Your task to perform on an android device: Clear the shopping cart on walmart.com. Add macbook pro to the cart on walmart.com Image 0: 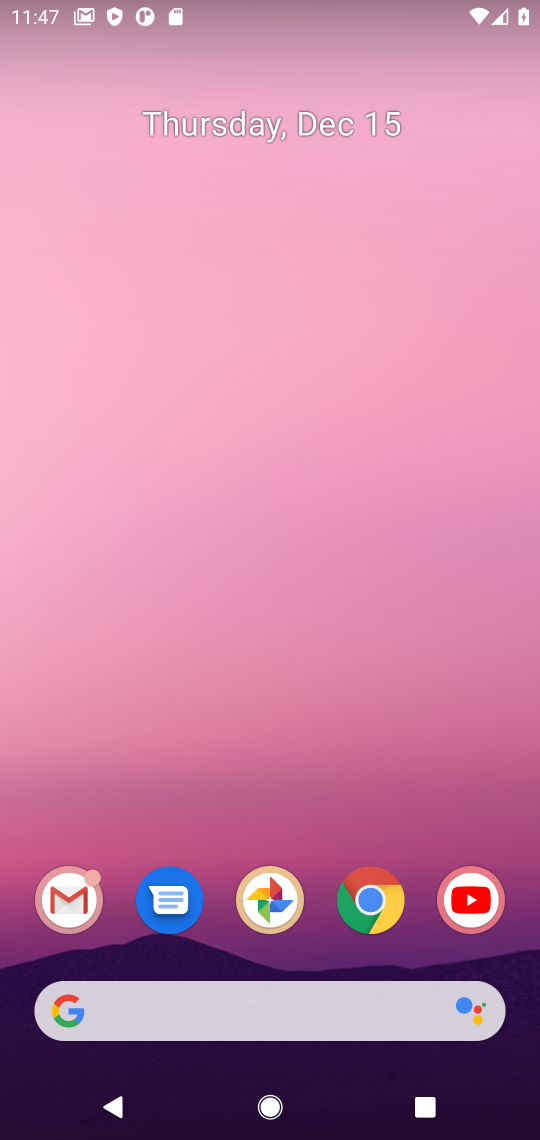
Step 0: click (353, 897)
Your task to perform on an android device: Clear the shopping cart on walmart.com. Add macbook pro to the cart on walmart.com Image 1: 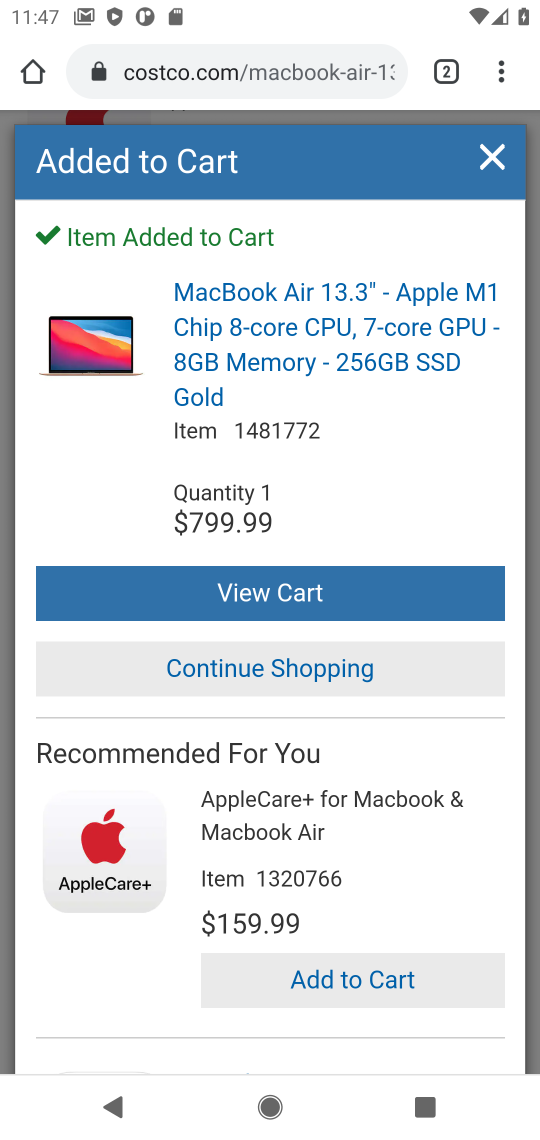
Step 1: click (345, 68)
Your task to perform on an android device: Clear the shopping cart on walmart.com. Add macbook pro to the cart on walmart.com Image 2: 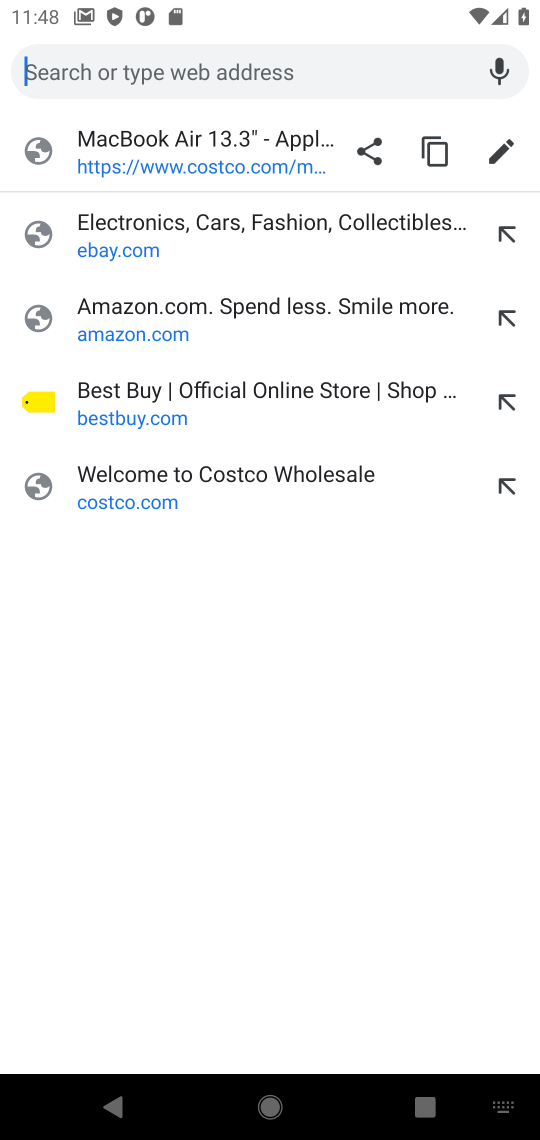
Step 2: press enter
Your task to perform on an android device: Clear the shopping cart on walmart.com. Add macbook pro to the cart on walmart.com Image 3: 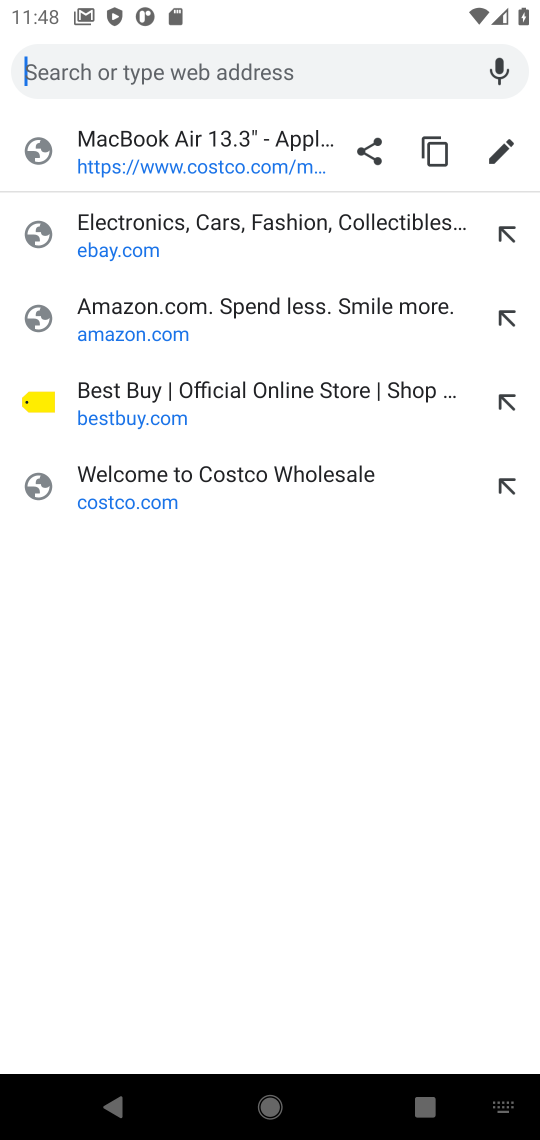
Step 3: type "walmart.com"
Your task to perform on an android device: Clear the shopping cart on walmart.com. Add macbook pro to the cart on walmart.com Image 4: 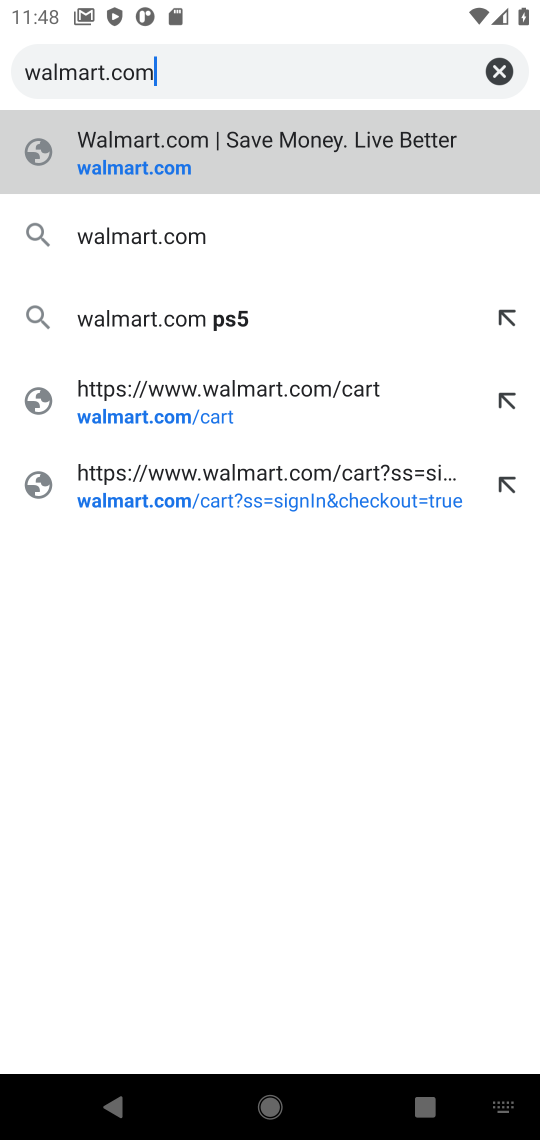
Step 4: click (167, 236)
Your task to perform on an android device: Clear the shopping cart on walmart.com. Add macbook pro to the cart on walmart.com Image 5: 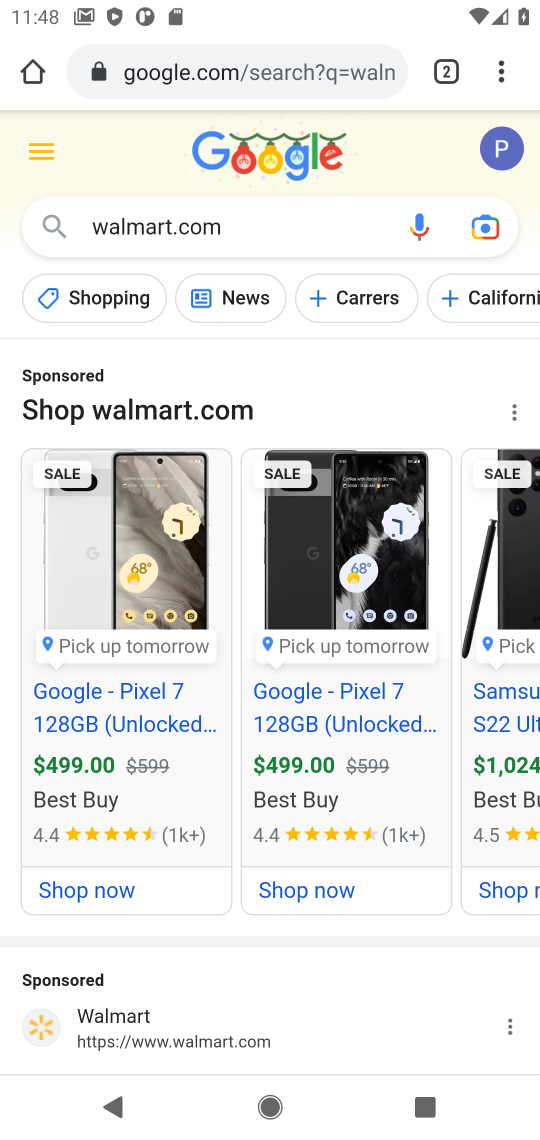
Step 5: click (194, 1038)
Your task to perform on an android device: Clear the shopping cart on walmart.com. Add macbook pro to the cart on walmart.com Image 6: 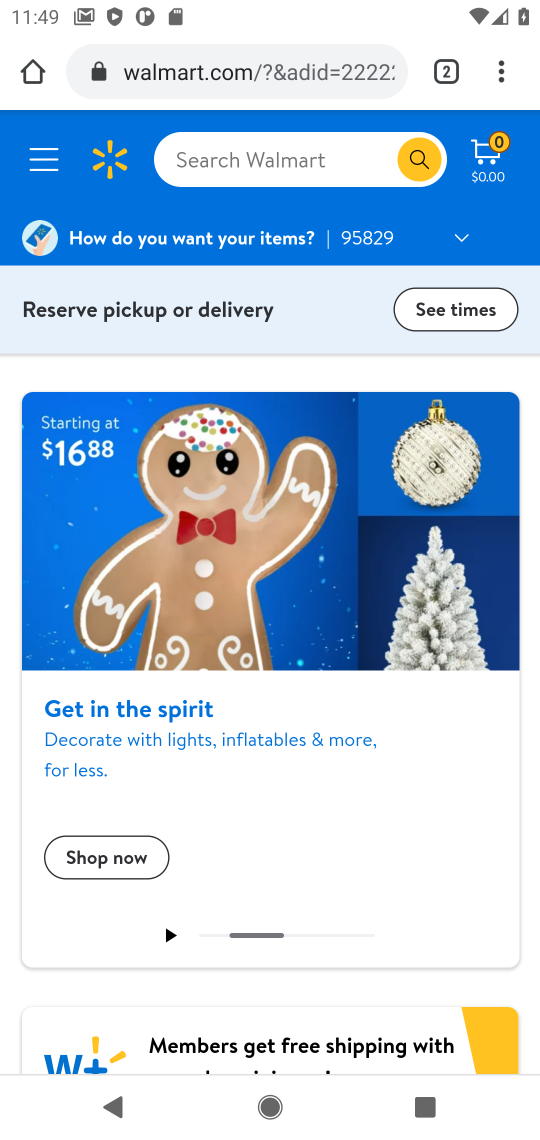
Step 6: click (337, 165)
Your task to perform on an android device: Clear the shopping cart on walmart.com. Add macbook pro to the cart on walmart.com Image 7: 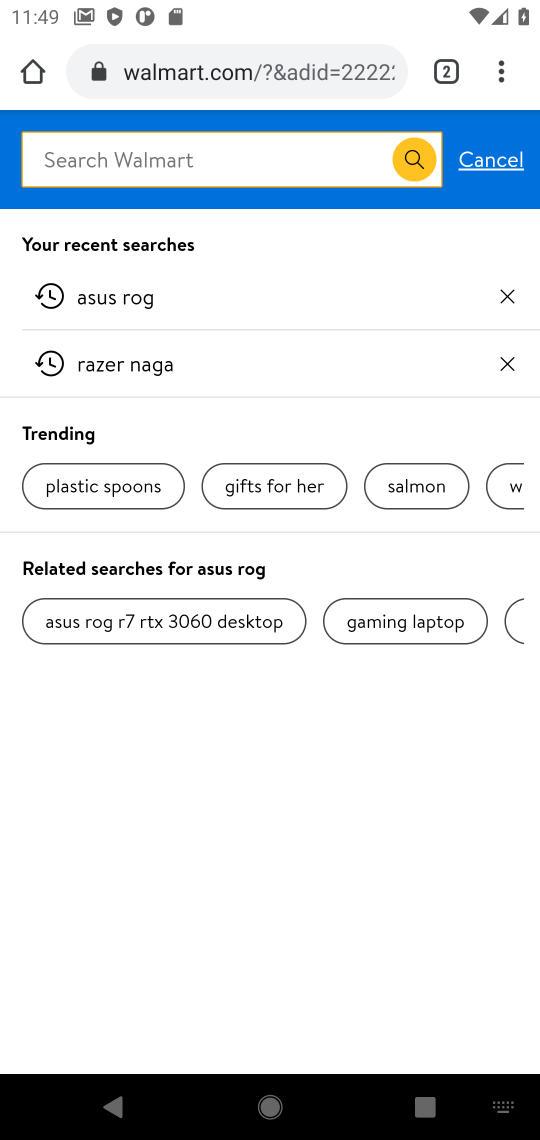
Step 7: press enter
Your task to perform on an android device: Clear the shopping cart on walmart.com. Add macbook pro to the cart on walmart.com Image 8: 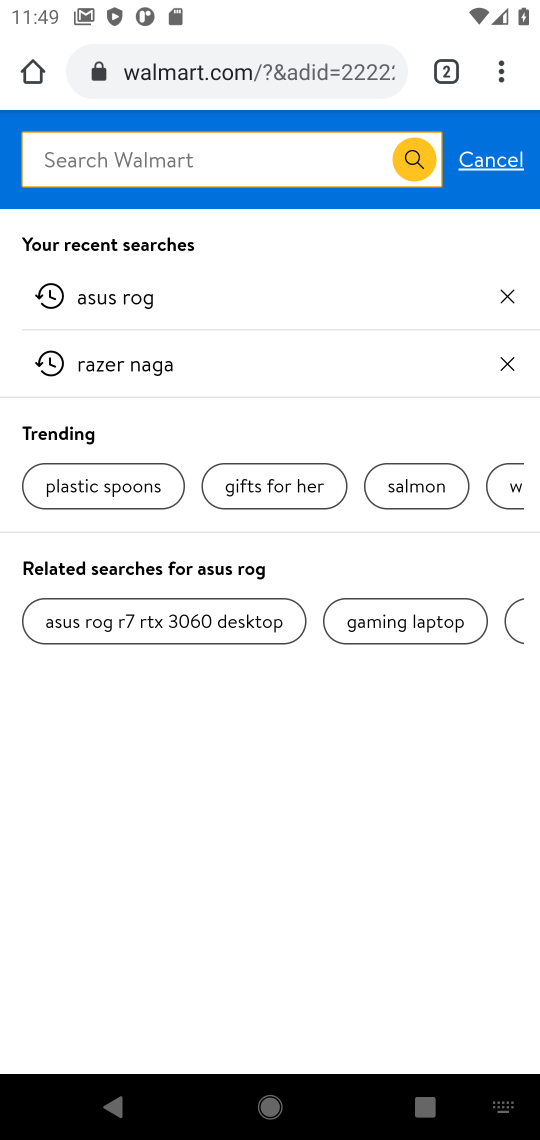
Step 8: type "macbook pro"
Your task to perform on an android device: Clear the shopping cart on walmart.com. Add macbook pro to the cart on walmart.com Image 9: 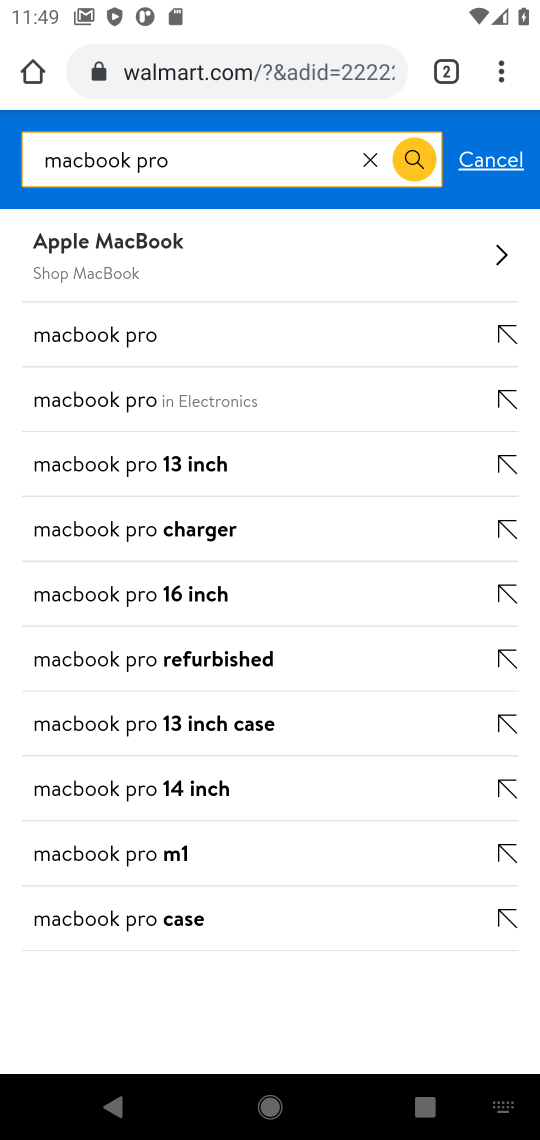
Step 9: click (139, 337)
Your task to perform on an android device: Clear the shopping cart on walmart.com. Add macbook pro to the cart on walmart.com Image 10: 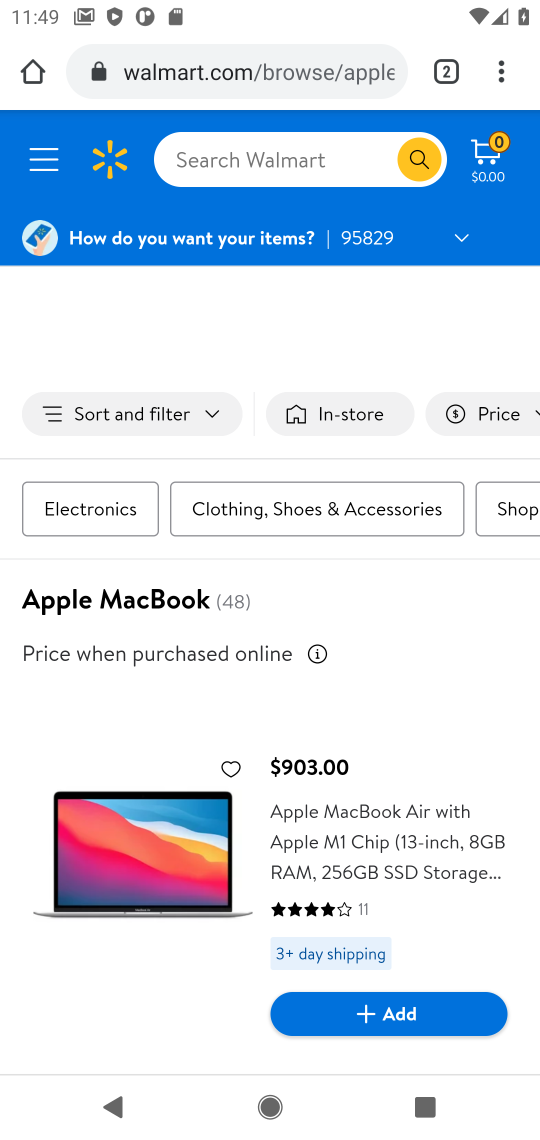
Step 10: drag from (377, 822) to (423, 357)
Your task to perform on an android device: Clear the shopping cart on walmart.com. Add macbook pro to the cart on walmart.com Image 11: 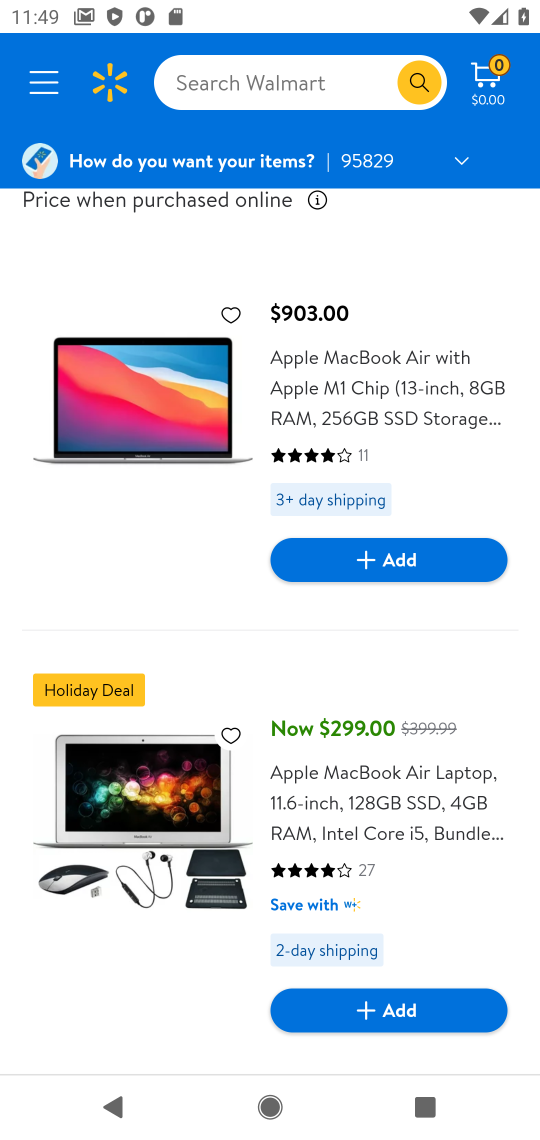
Step 11: drag from (424, 830) to (430, 472)
Your task to perform on an android device: Clear the shopping cart on walmart.com. Add macbook pro to the cart on walmart.com Image 12: 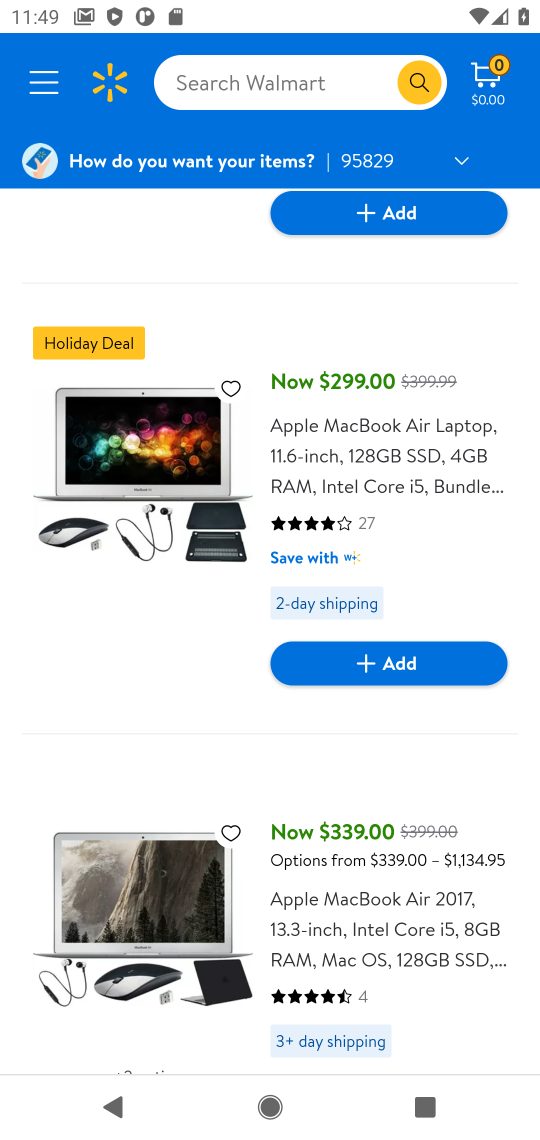
Step 12: drag from (413, 944) to (397, 318)
Your task to perform on an android device: Clear the shopping cart on walmart.com. Add macbook pro to the cart on walmart.com Image 13: 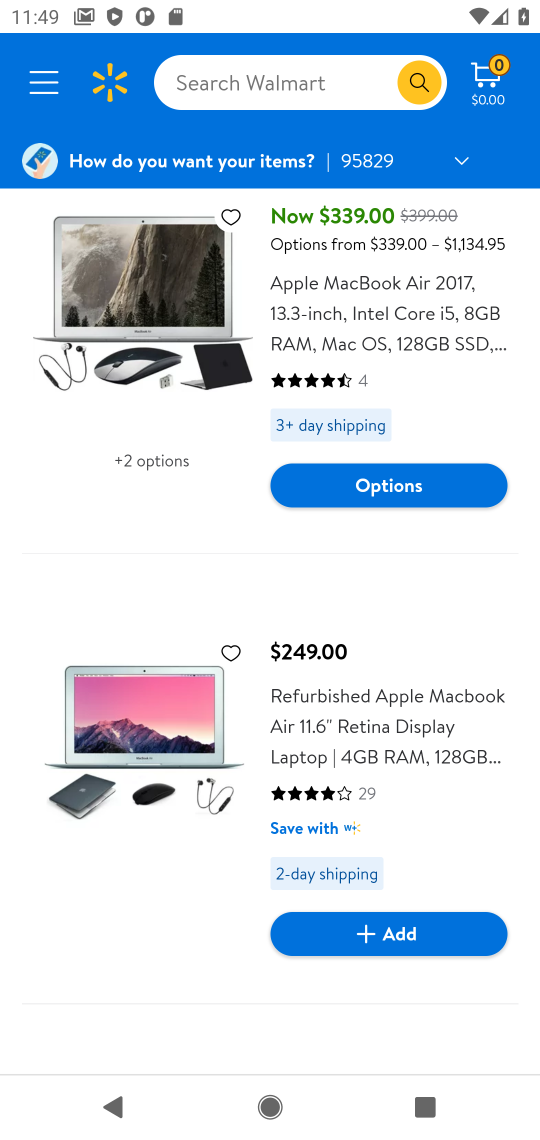
Step 13: drag from (420, 707) to (450, 255)
Your task to perform on an android device: Clear the shopping cart on walmart.com. Add macbook pro to the cart on walmart.com Image 14: 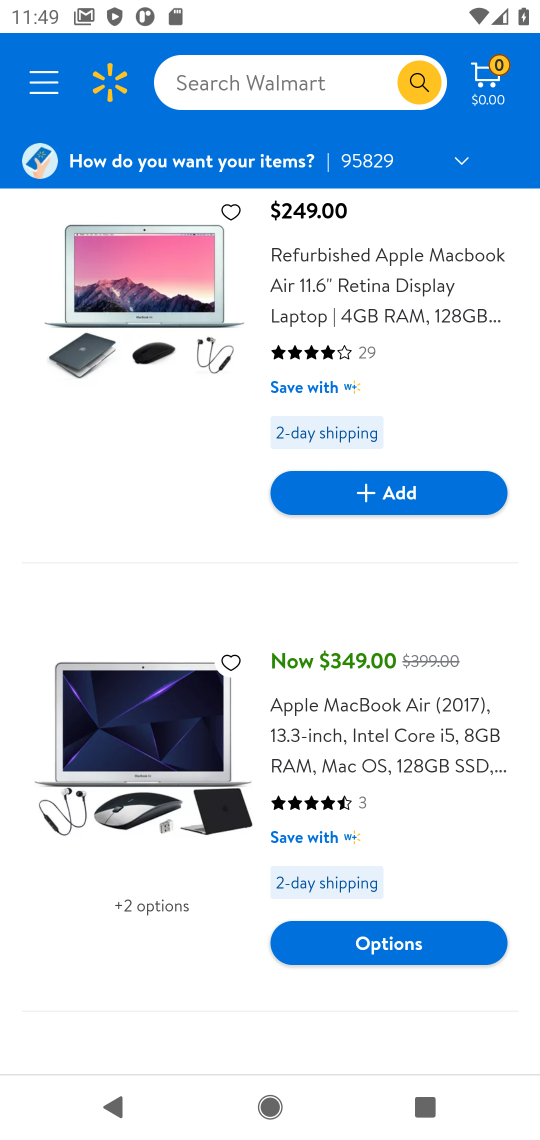
Step 14: drag from (440, 771) to (443, 281)
Your task to perform on an android device: Clear the shopping cart on walmart.com. Add macbook pro to the cart on walmart.com Image 15: 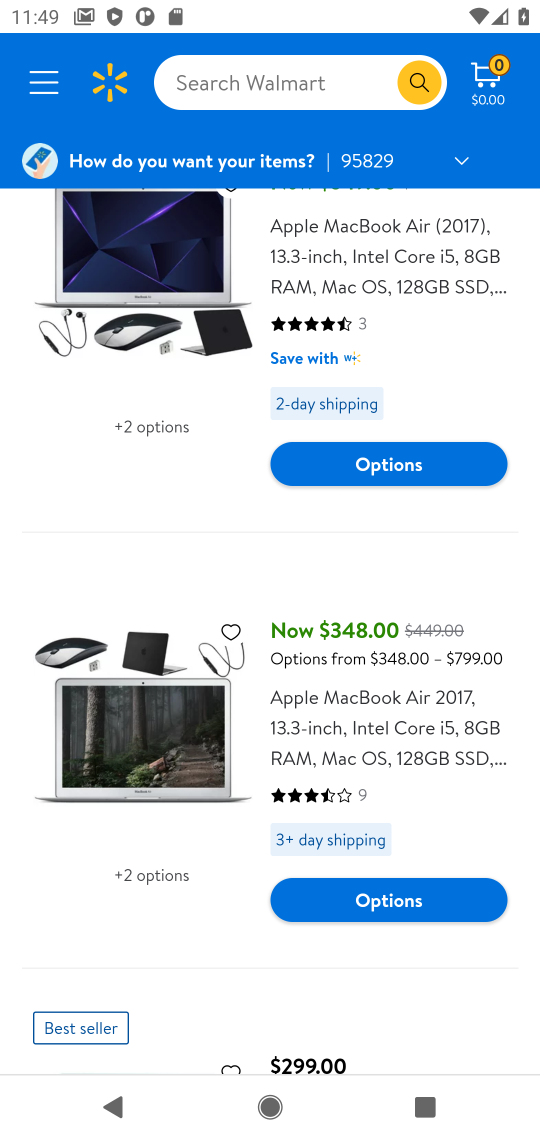
Step 15: drag from (406, 701) to (468, 297)
Your task to perform on an android device: Clear the shopping cart on walmart.com. Add macbook pro to the cart on walmart.com Image 16: 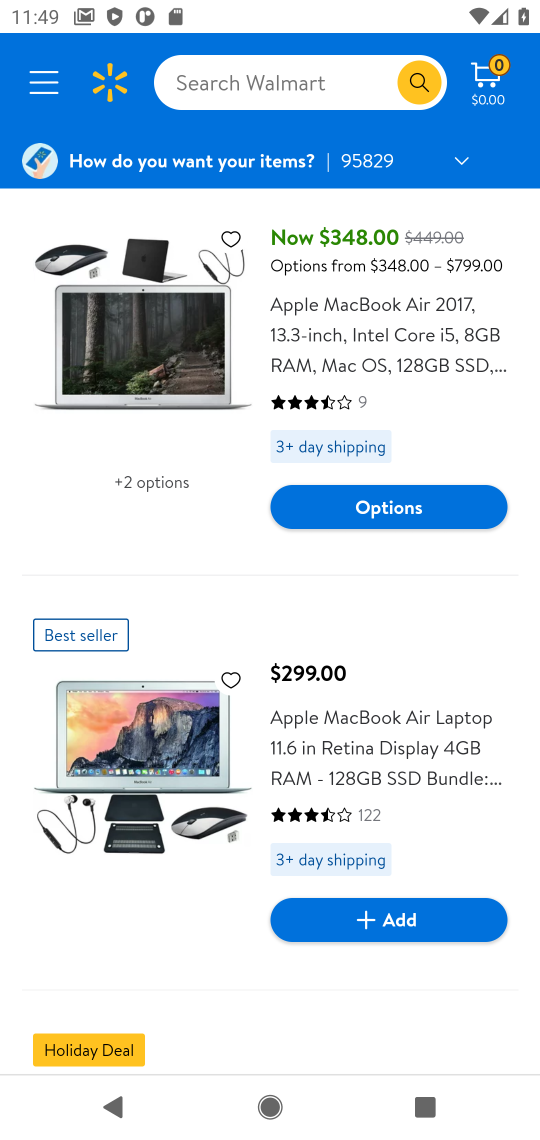
Step 16: drag from (407, 683) to (415, 207)
Your task to perform on an android device: Clear the shopping cart on walmart.com. Add macbook pro to the cart on walmart.com Image 17: 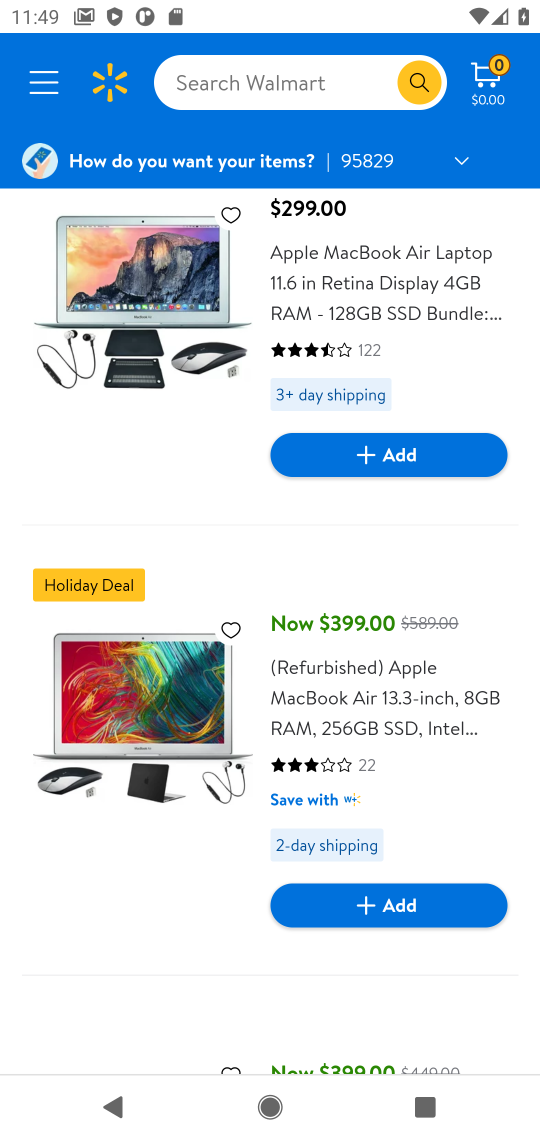
Step 17: drag from (387, 705) to (393, 395)
Your task to perform on an android device: Clear the shopping cart on walmart.com. Add macbook pro to the cart on walmart.com Image 18: 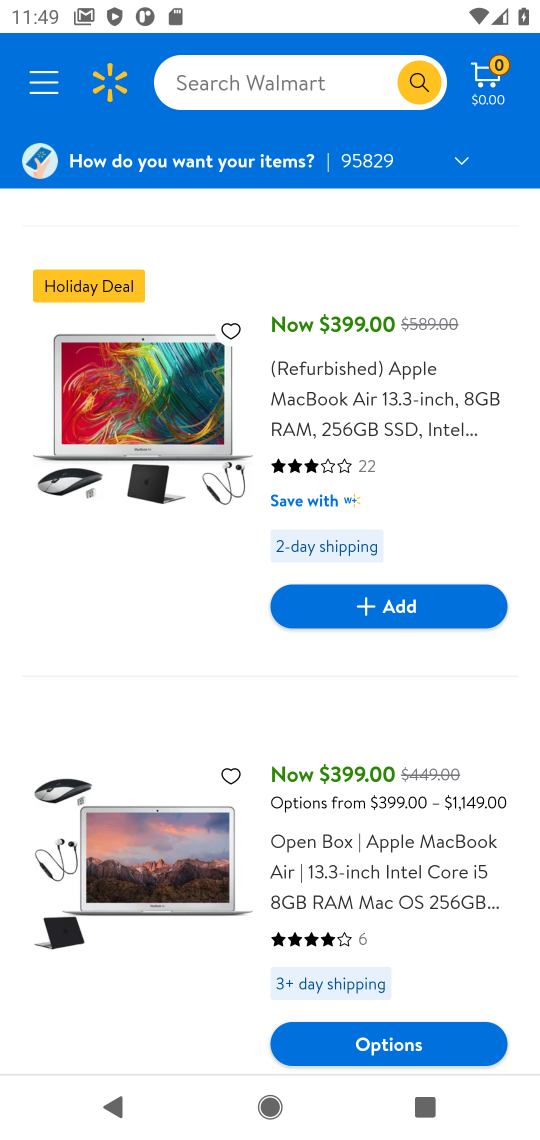
Step 18: drag from (374, 863) to (361, 325)
Your task to perform on an android device: Clear the shopping cart on walmart.com. Add macbook pro to the cart on walmart.com Image 19: 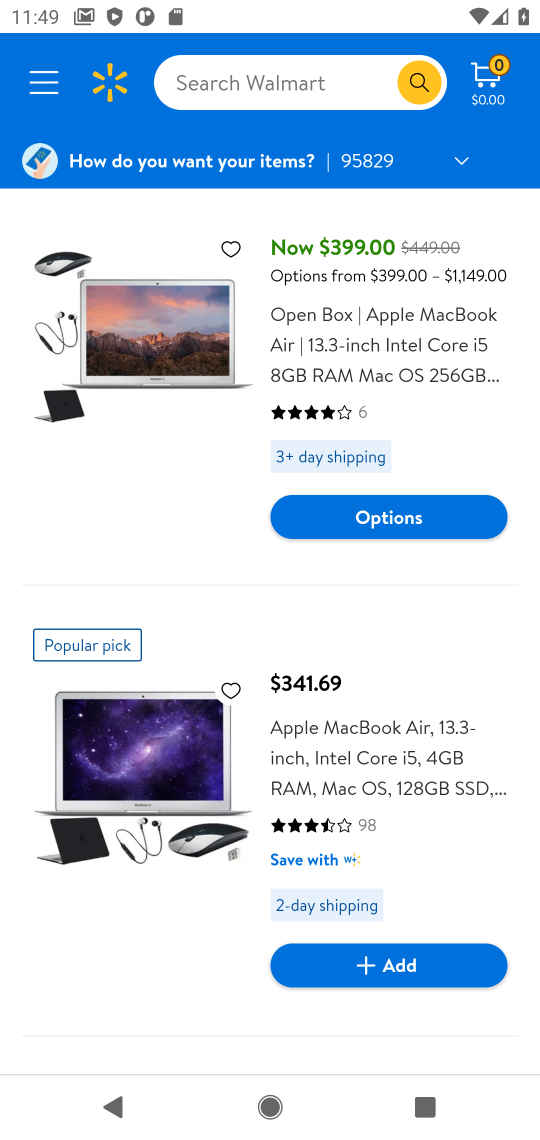
Step 19: drag from (436, 783) to (442, 383)
Your task to perform on an android device: Clear the shopping cart on walmart.com. Add macbook pro to the cart on walmart.com Image 20: 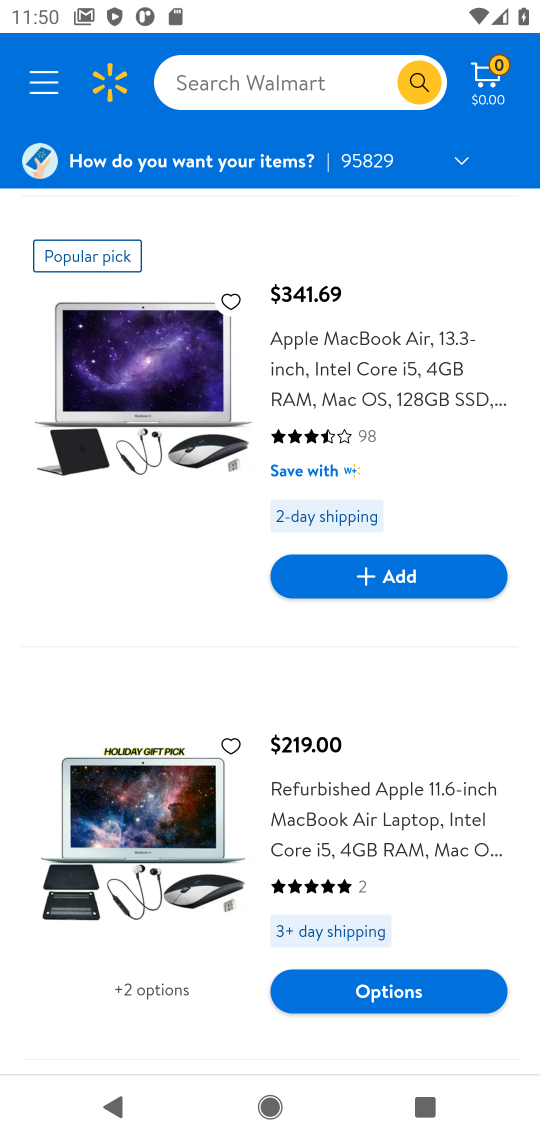
Step 20: drag from (431, 832) to (441, 319)
Your task to perform on an android device: Clear the shopping cart on walmart.com. Add macbook pro to the cart on walmart.com Image 21: 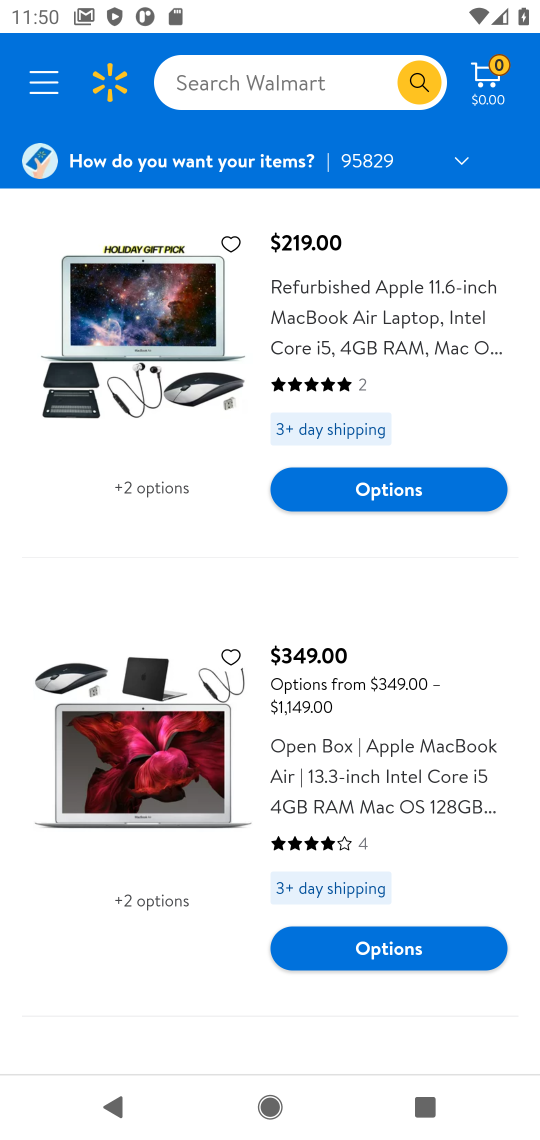
Step 21: drag from (437, 791) to (476, 329)
Your task to perform on an android device: Clear the shopping cart on walmart.com. Add macbook pro to the cart on walmart.com Image 22: 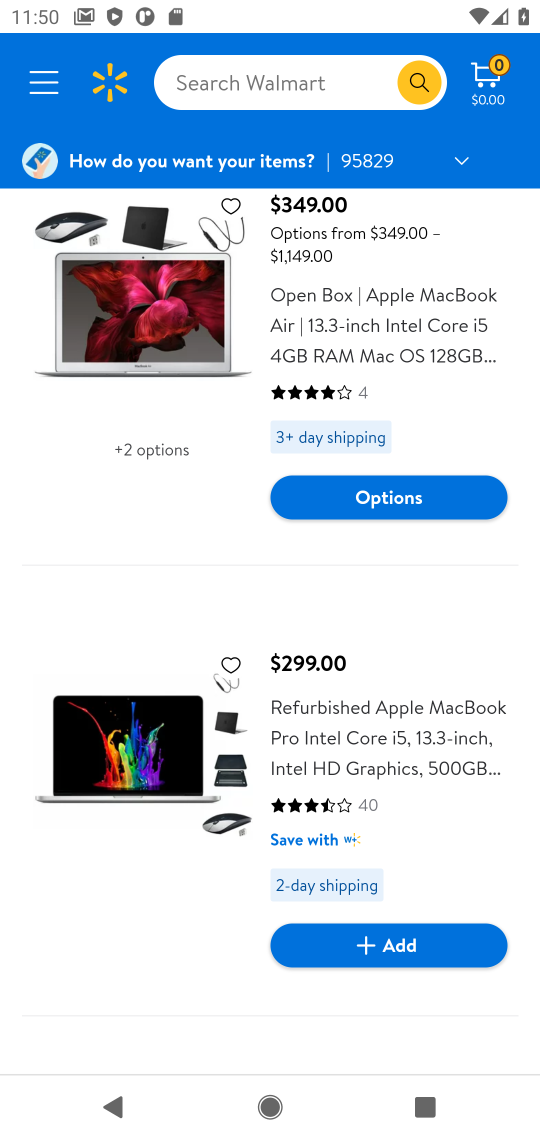
Step 22: click (109, 732)
Your task to perform on an android device: Clear the shopping cart on walmart.com. Add macbook pro to the cart on walmart.com Image 23: 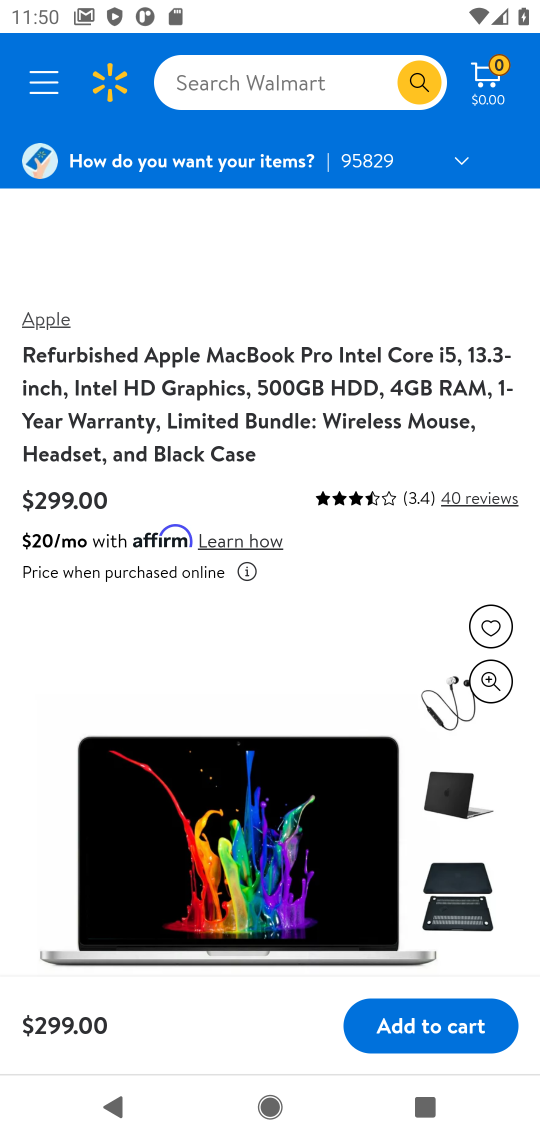
Step 23: click (441, 1026)
Your task to perform on an android device: Clear the shopping cart on walmart.com. Add macbook pro to the cart on walmart.com Image 24: 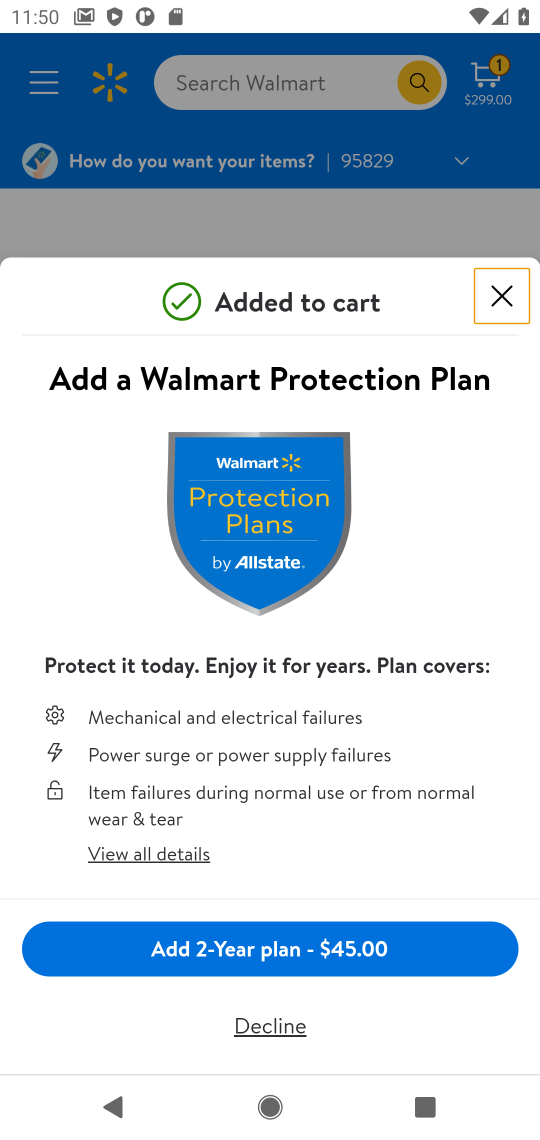
Step 24: click (493, 304)
Your task to perform on an android device: Clear the shopping cart on walmart.com. Add macbook pro to the cart on walmart.com Image 25: 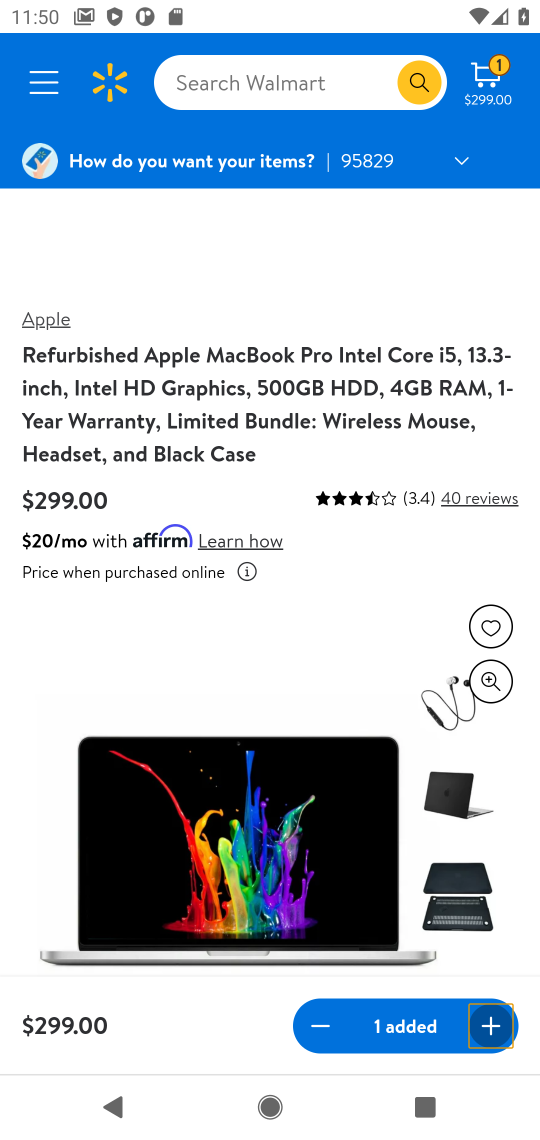
Step 25: click (481, 91)
Your task to perform on an android device: Clear the shopping cart on walmart.com. Add macbook pro to the cart on walmart.com Image 26: 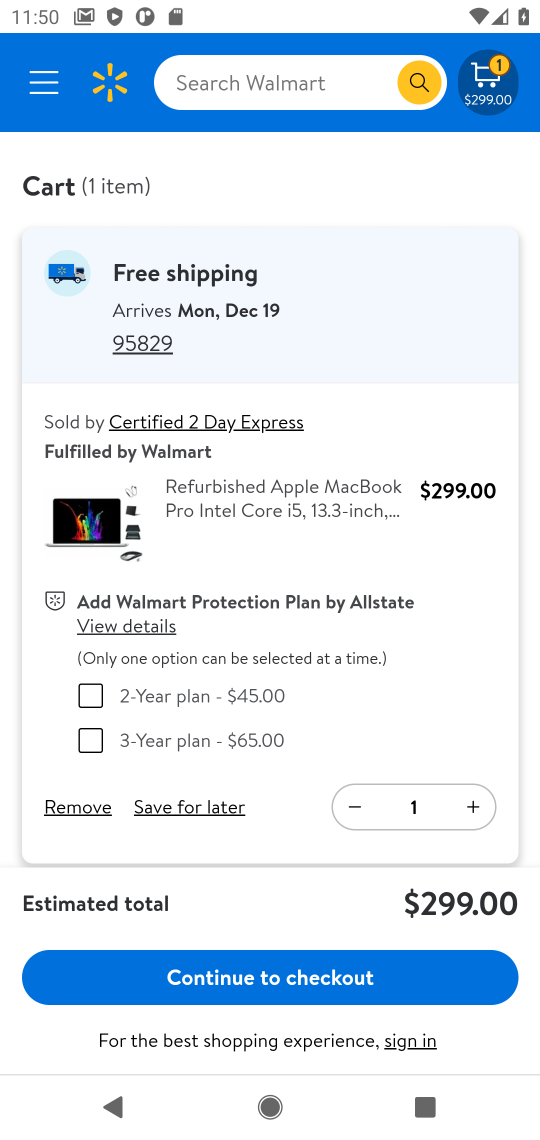
Step 26: task complete